Your task to perform on an android device: turn off improve location accuracy Image 0: 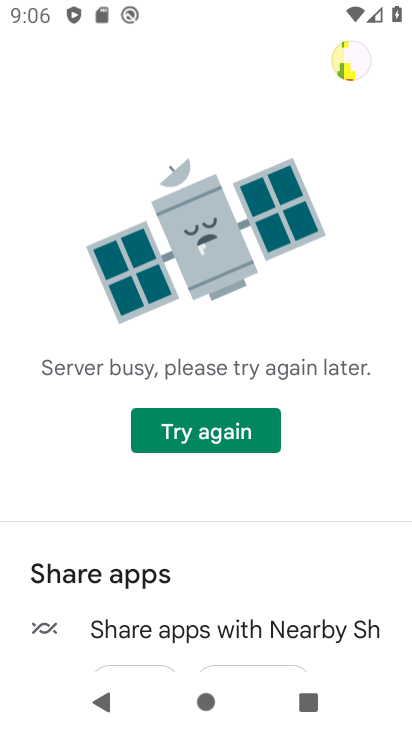
Step 0: press home button
Your task to perform on an android device: turn off improve location accuracy Image 1: 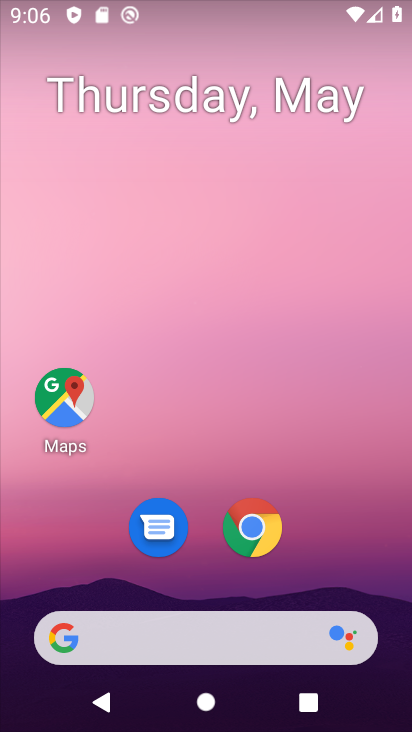
Step 1: drag from (188, 554) to (246, 6)
Your task to perform on an android device: turn off improve location accuracy Image 2: 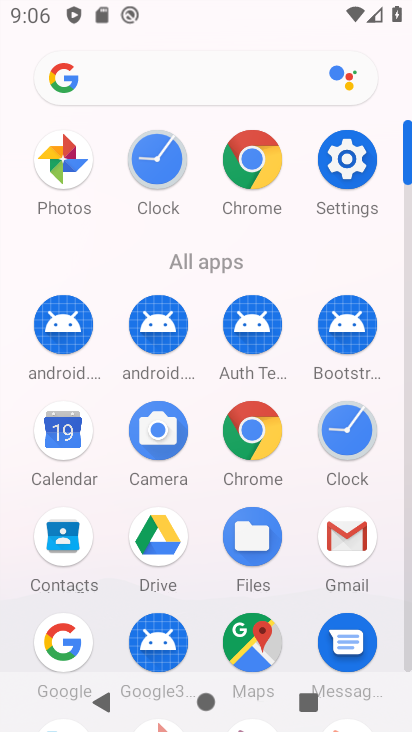
Step 2: click (363, 192)
Your task to perform on an android device: turn off improve location accuracy Image 3: 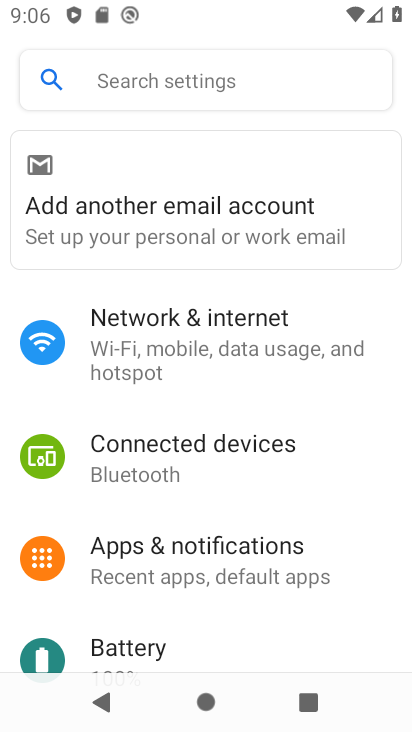
Step 3: drag from (180, 555) to (237, 209)
Your task to perform on an android device: turn off improve location accuracy Image 4: 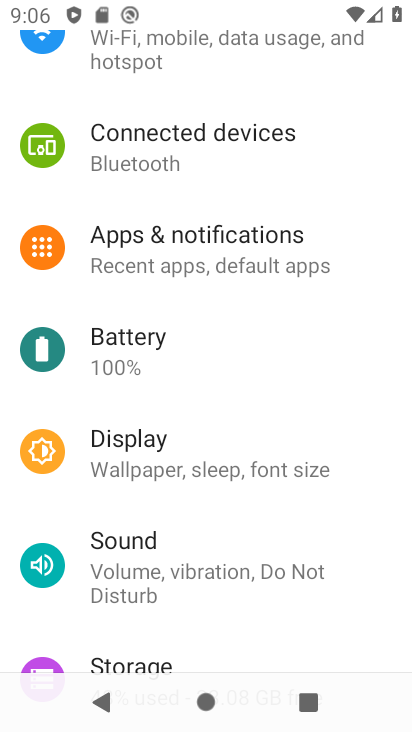
Step 4: drag from (201, 584) to (281, 140)
Your task to perform on an android device: turn off improve location accuracy Image 5: 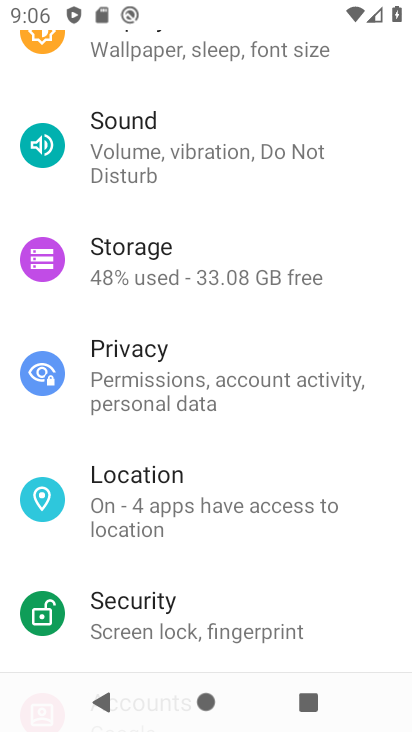
Step 5: click (183, 497)
Your task to perform on an android device: turn off improve location accuracy Image 6: 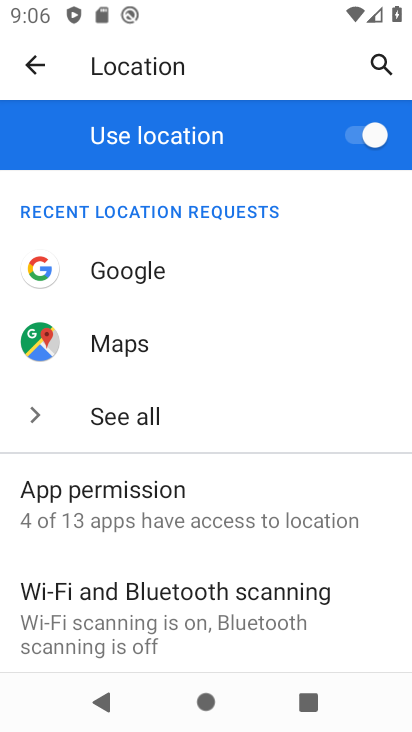
Step 6: drag from (137, 610) to (257, 148)
Your task to perform on an android device: turn off improve location accuracy Image 7: 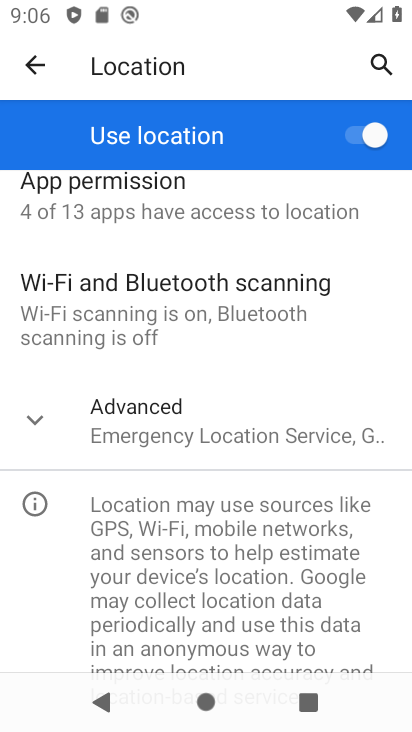
Step 7: click (123, 433)
Your task to perform on an android device: turn off improve location accuracy Image 8: 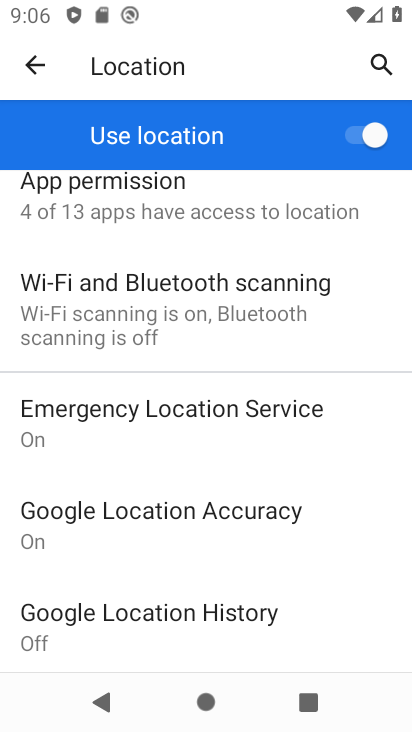
Step 8: click (198, 526)
Your task to perform on an android device: turn off improve location accuracy Image 9: 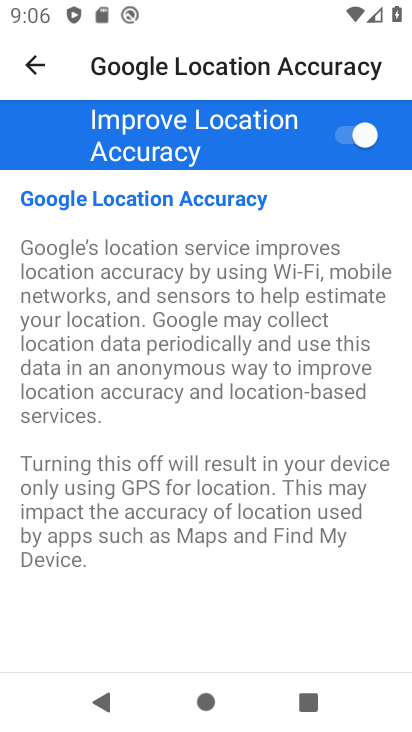
Step 9: click (358, 141)
Your task to perform on an android device: turn off improve location accuracy Image 10: 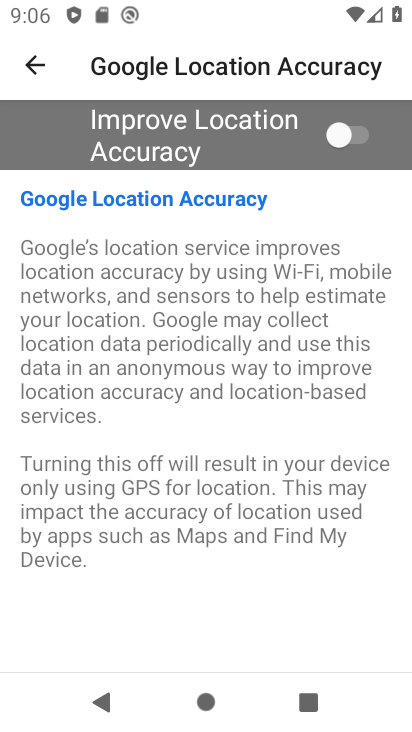
Step 10: task complete